Your task to perform on an android device: Check the weather Image 0: 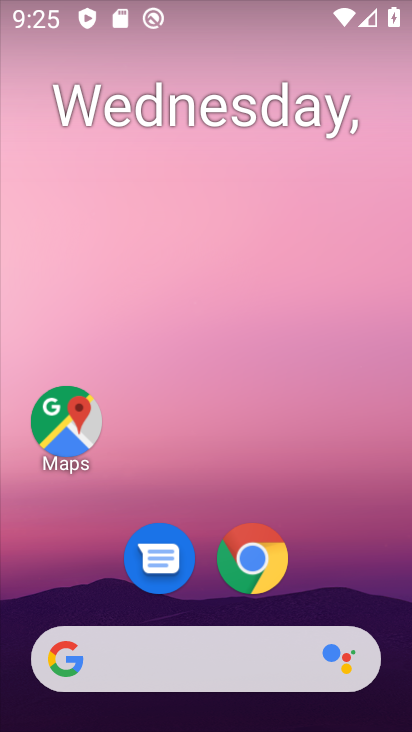
Step 0: press home button
Your task to perform on an android device: Check the weather Image 1: 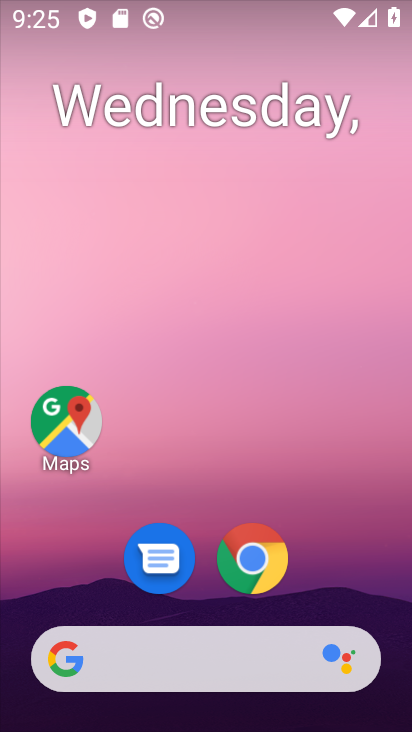
Step 1: click (198, 663)
Your task to perform on an android device: Check the weather Image 2: 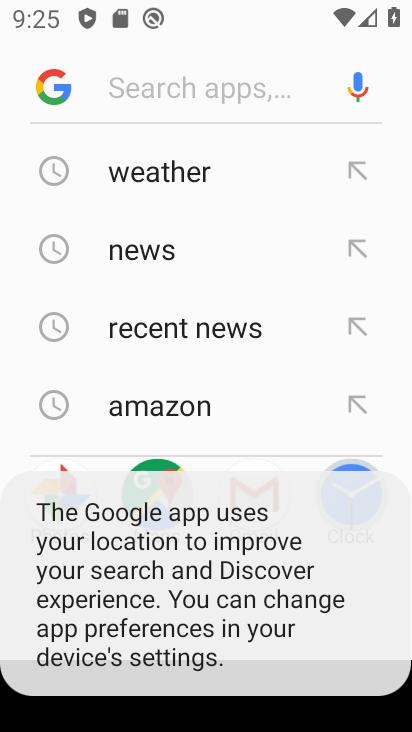
Step 2: click (155, 173)
Your task to perform on an android device: Check the weather Image 3: 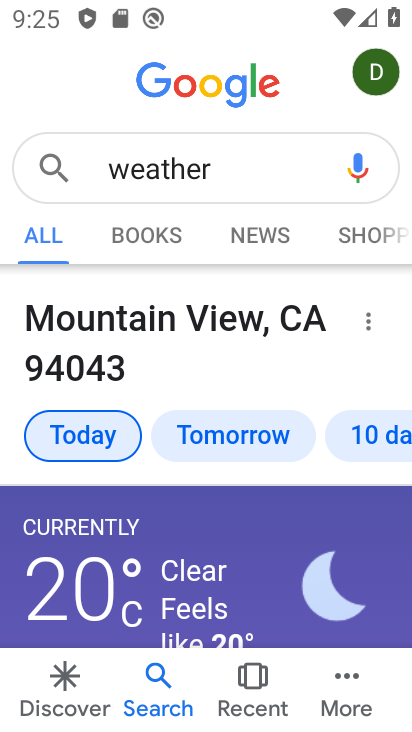
Step 3: task complete